Your task to perform on an android device: Open my contact list Image 0: 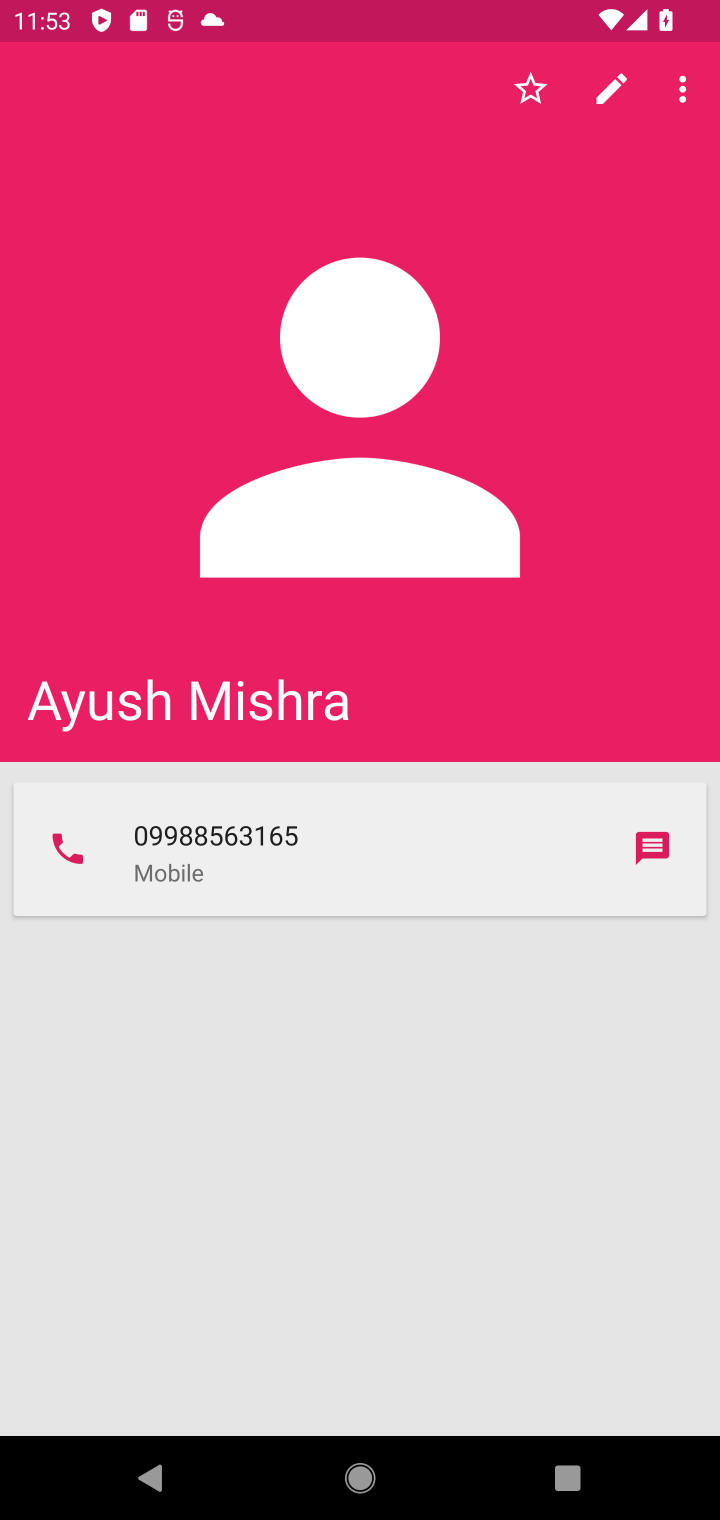
Step 0: press home button
Your task to perform on an android device: Open my contact list Image 1: 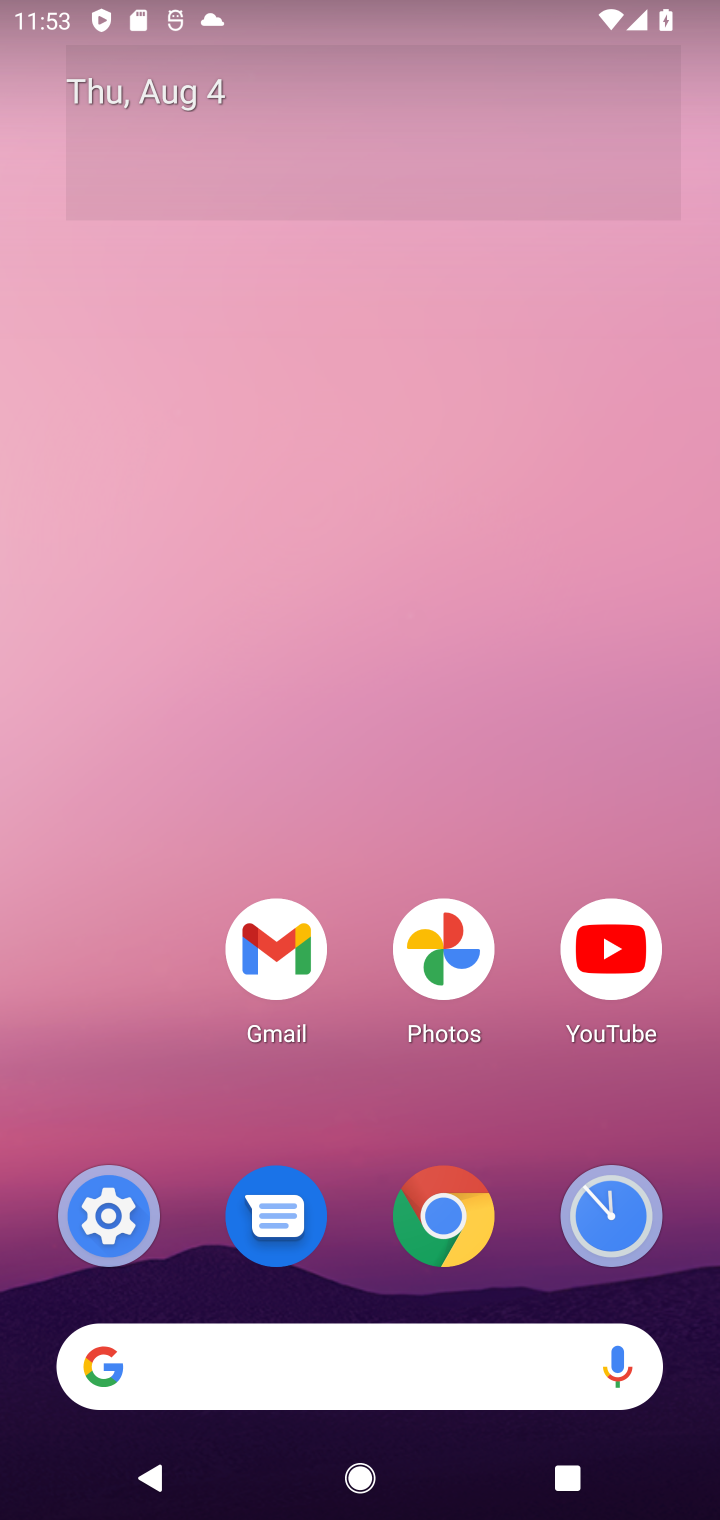
Step 1: drag from (317, 1373) to (263, 286)
Your task to perform on an android device: Open my contact list Image 2: 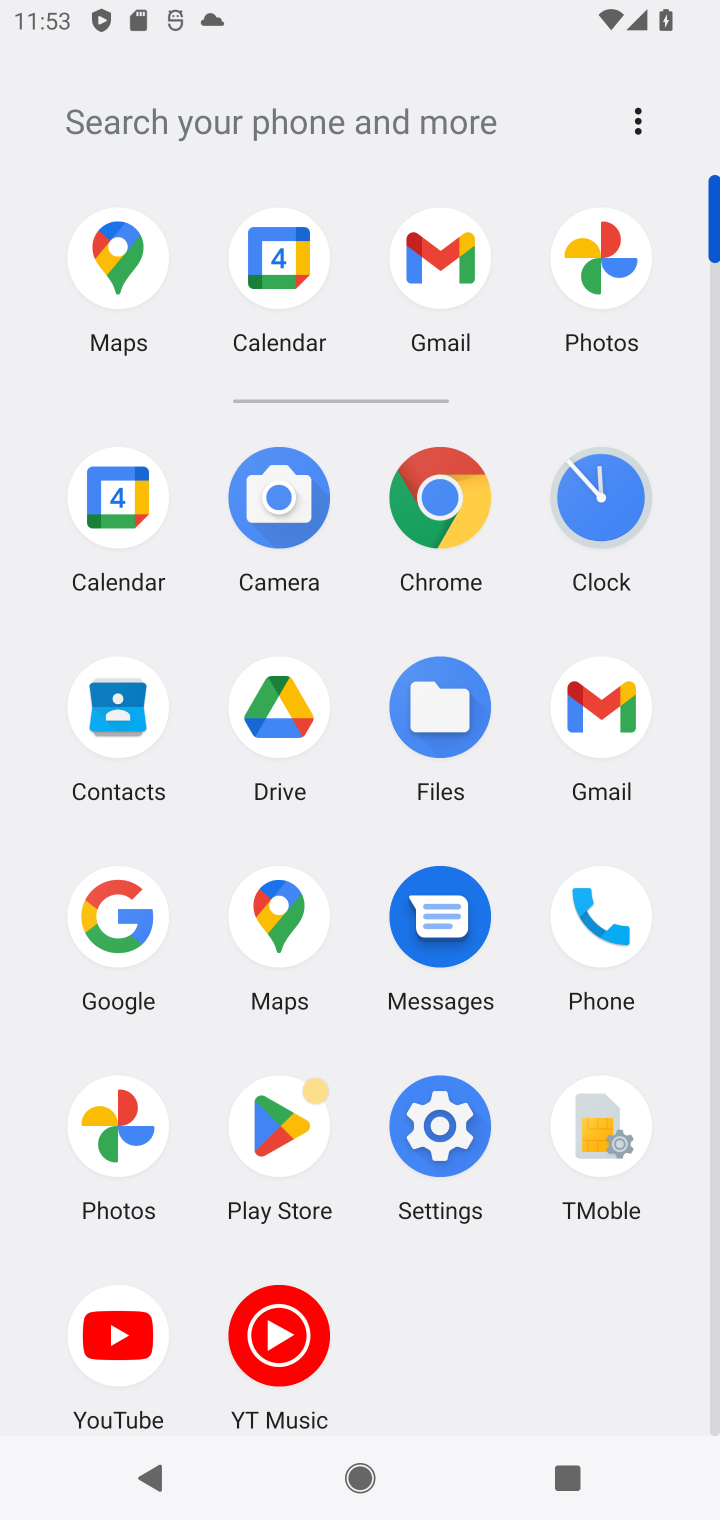
Step 2: click (120, 712)
Your task to perform on an android device: Open my contact list Image 3: 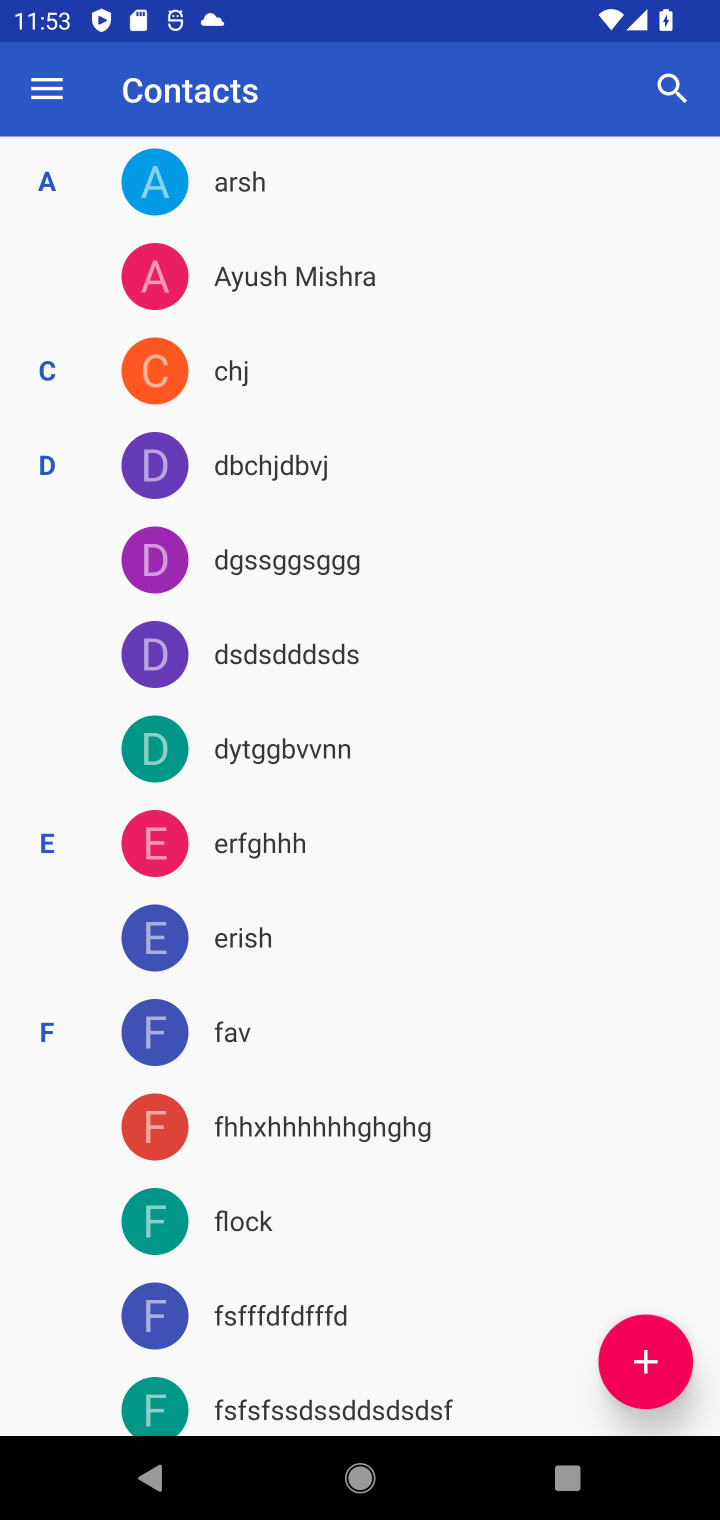
Step 3: task complete